Your task to perform on an android device: Go to CNN.com Image 0: 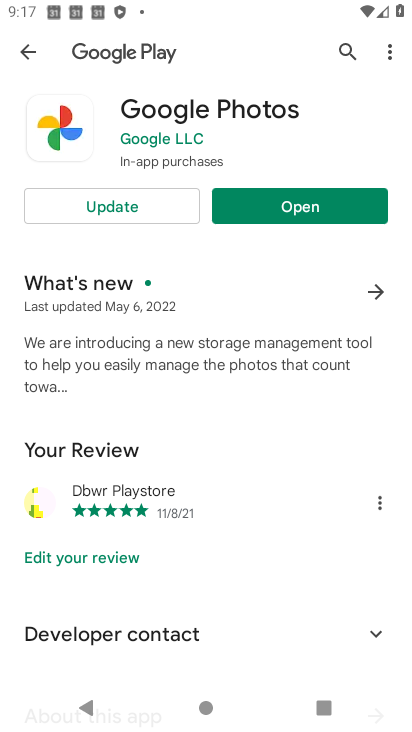
Step 0: press home button
Your task to perform on an android device: Go to CNN.com Image 1: 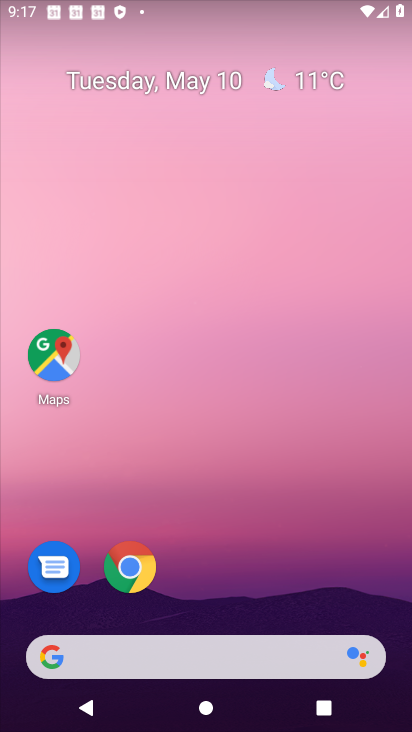
Step 1: drag from (190, 617) to (202, 344)
Your task to perform on an android device: Go to CNN.com Image 2: 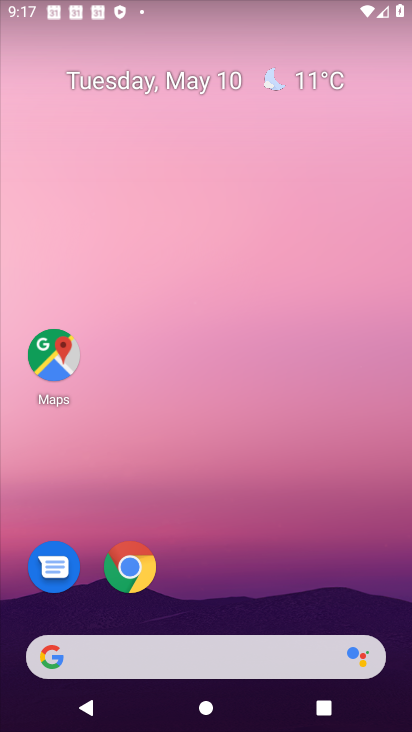
Step 2: drag from (268, 636) to (258, 228)
Your task to perform on an android device: Go to CNN.com Image 3: 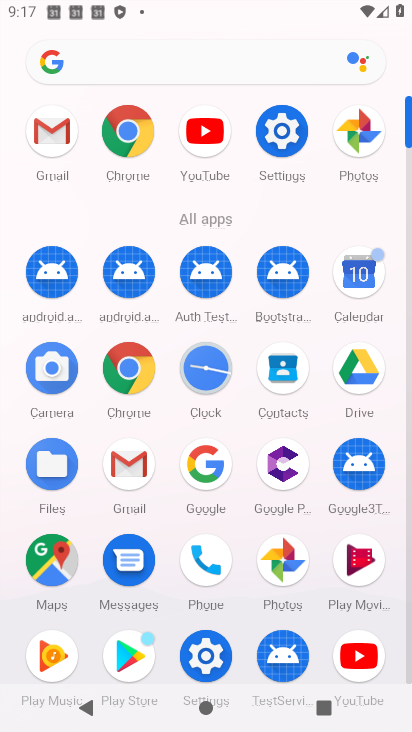
Step 3: click (213, 461)
Your task to perform on an android device: Go to CNN.com Image 4: 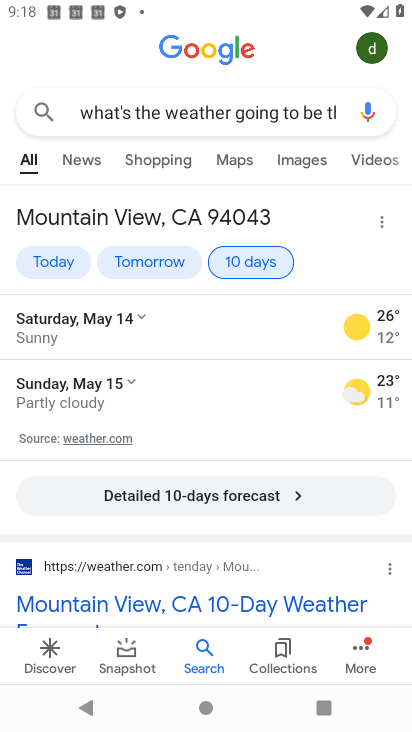
Step 4: click (278, 113)
Your task to perform on an android device: Go to CNN.com Image 5: 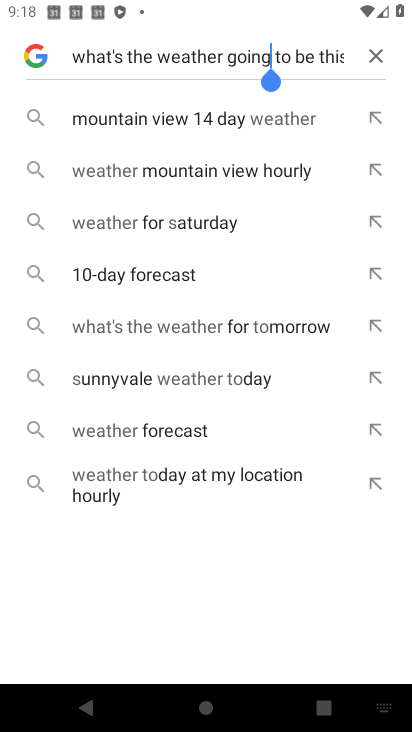
Step 5: click (368, 61)
Your task to perform on an android device: Go to CNN.com Image 6: 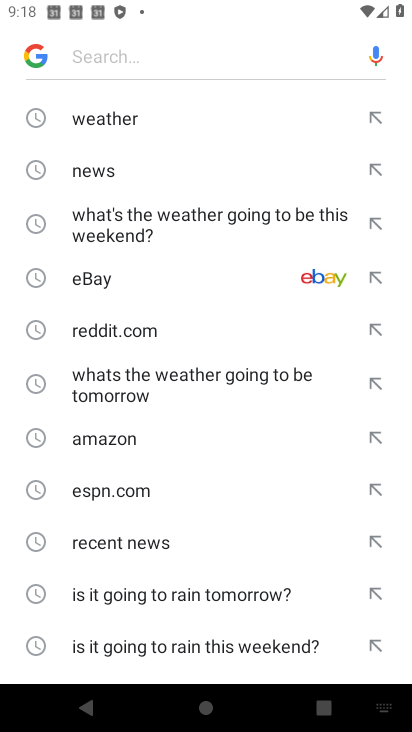
Step 6: type "CNN.comm"
Your task to perform on an android device: Go to CNN.com Image 7: 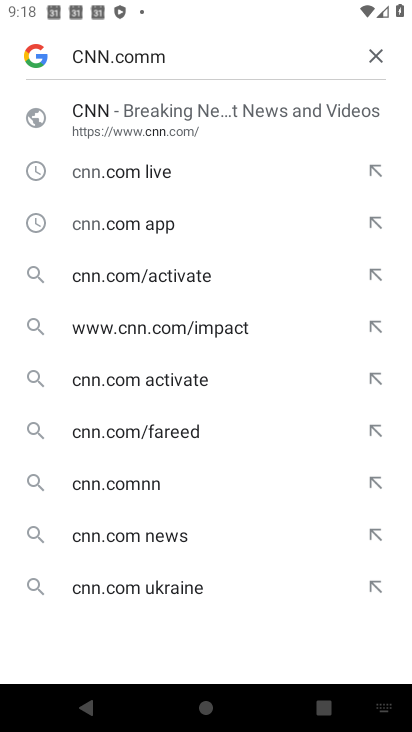
Step 7: click (165, 121)
Your task to perform on an android device: Go to CNN.com Image 8: 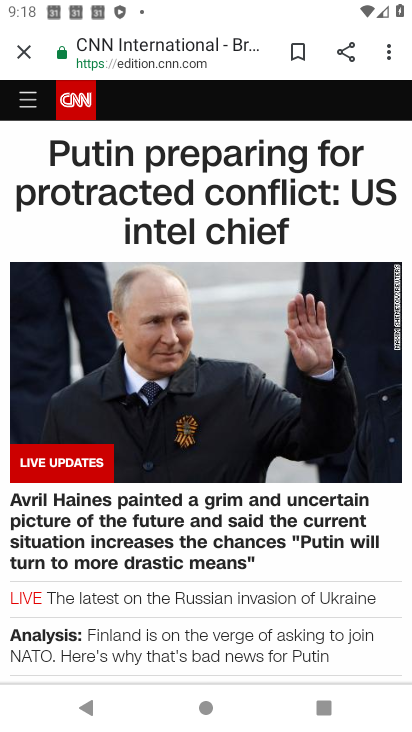
Step 8: task complete